Your task to perform on an android device: Open Google Chrome and click the shortcut for Amazon.com Image 0: 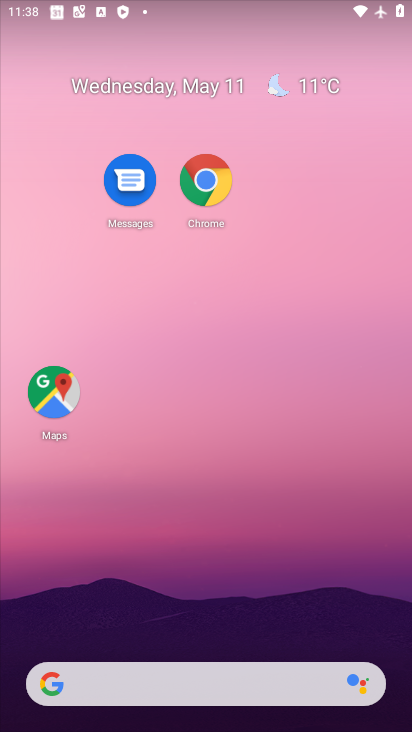
Step 0: drag from (301, 580) to (273, 101)
Your task to perform on an android device: Open Google Chrome and click the shortcut for Amazon.com Image 1: 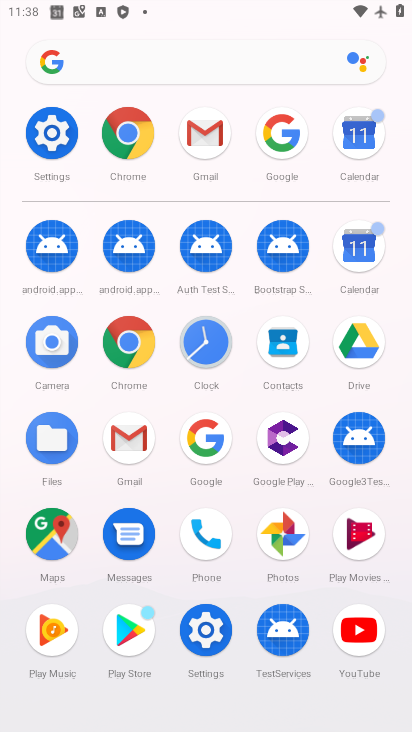
Step 1: click (141, 360)
Your task to perform on an android device: Open Google Chrome and click the shortcut for Amazon.com Image 2: 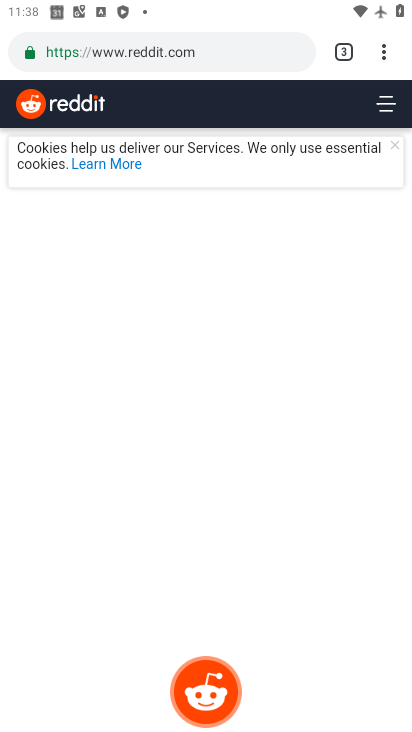
Step 2: click (339, 56)
Your task to perform on an android device: Open Google Chrome and click the shortcut for Amazon.com Image 3: 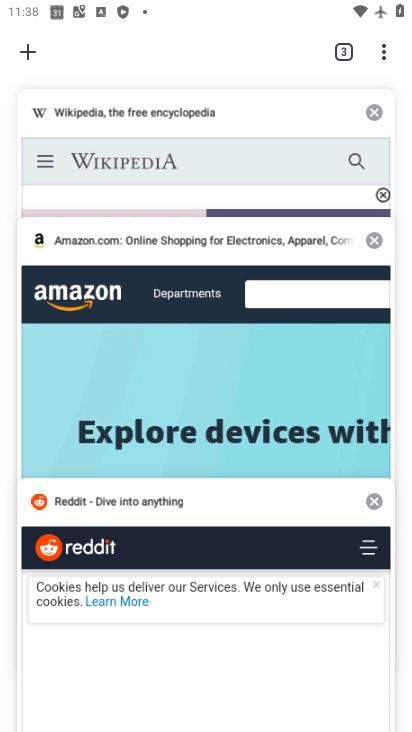
Step 3: click (26, 61)
Your task to perform on an android device: Open Google Chrome and click the shortcut for Amazon.com Image 4: 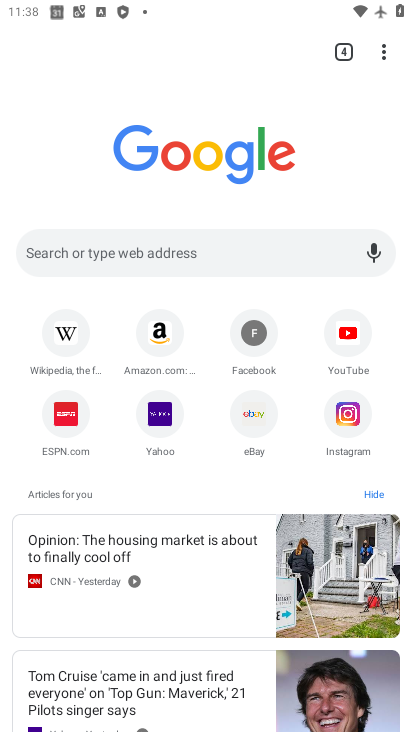
Step 4: click (173, 327)
Your task to perform on an android device: Open Google Chrome and click the shortcut for Amazon.com Image 5: 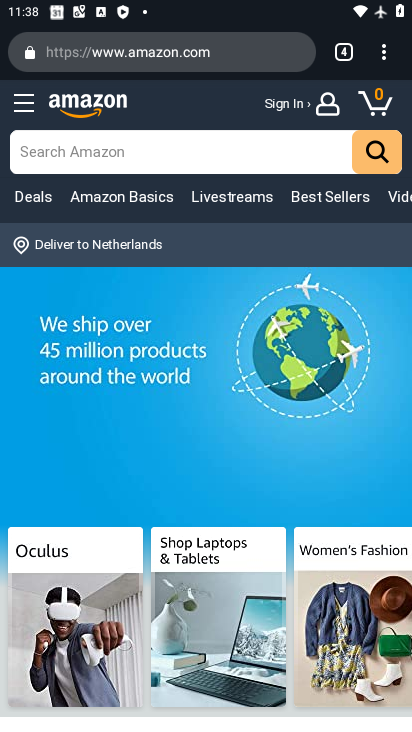
Step 5: task complete